Your task to perform on an android device: Turn off the flashlight Image 0: 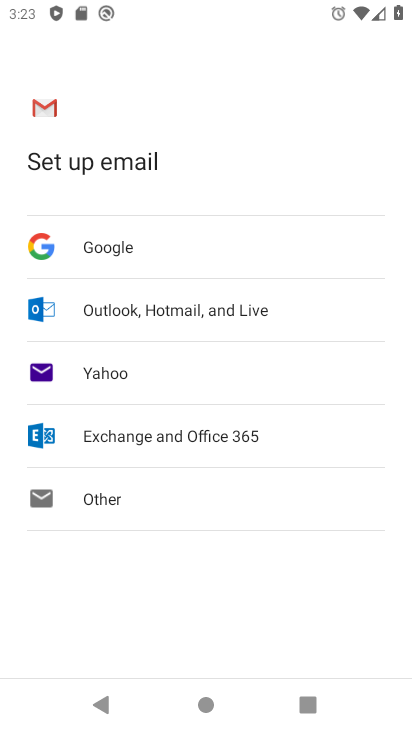
Step 0: press home button
Your task to perform on an android device: Turn off the flashlight Image 1: 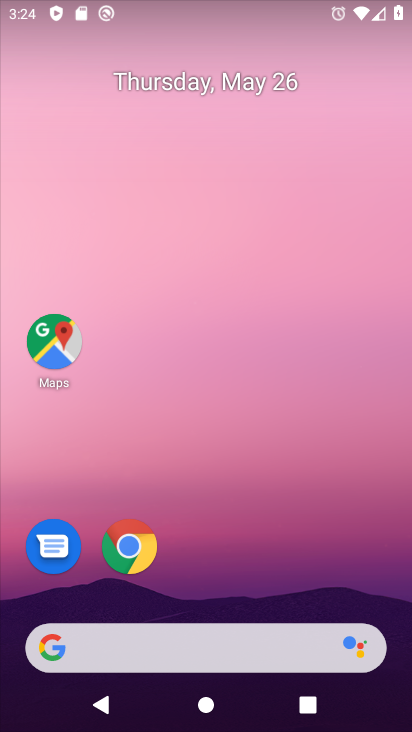
Step 1: click (395, 118)
Your task to perform on an android device: Turn off the flashlight Image 2: 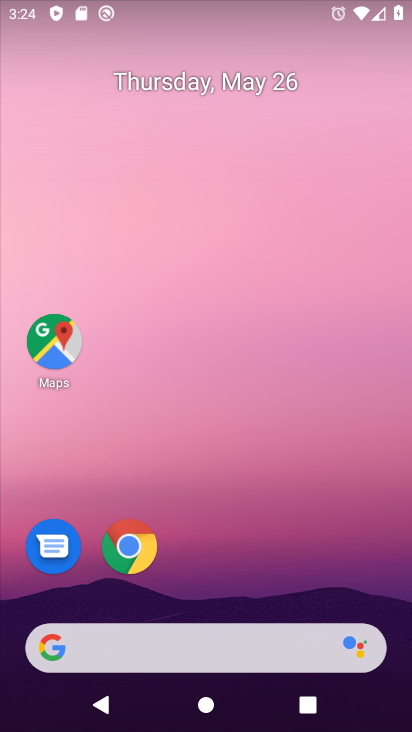
Step 2: drag from (394, 649) to (363, 129)
Your task to perform on an android device: Turn off the flashlight Image 3: 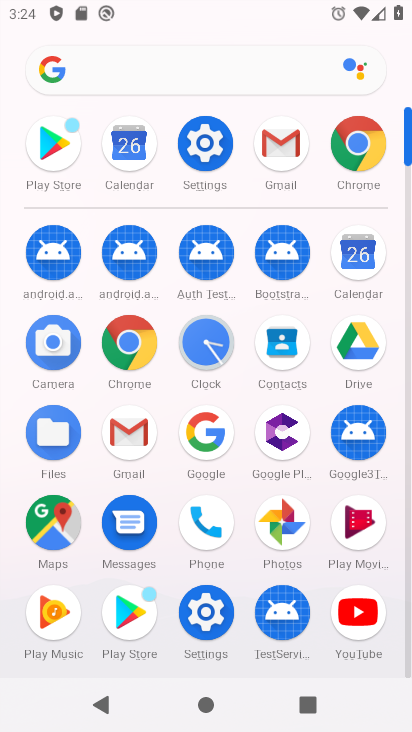
Step 3: click (202, 146)
Your task to perform on an android device: Turn off the flashlight Image 4: 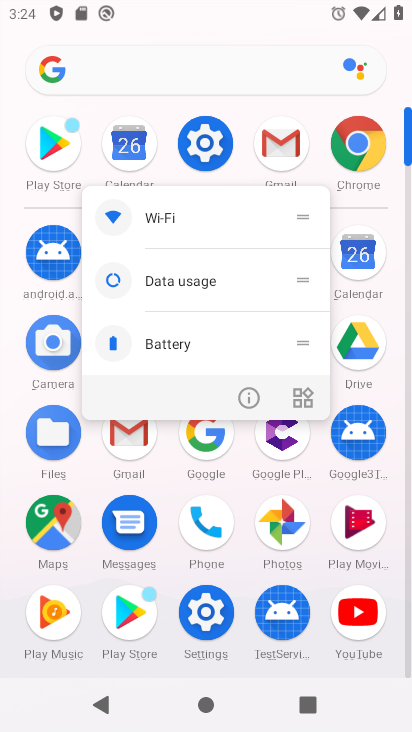
Step 4: click (204, 159)
Your task to perform on an android device: Turn off the flashlight Image 5: 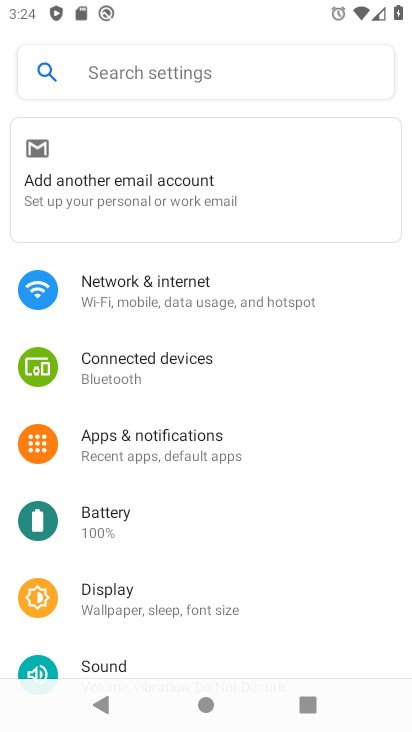
Step 5: click (111, 608)
Your task to perform on an android device: Turn off the flashlight Image 6: 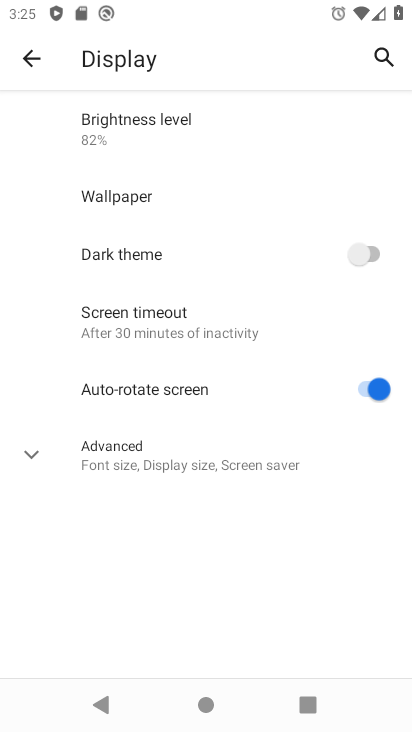
Step 6: task complete